Your task to perform on an android device: toggle wifi Image 0: 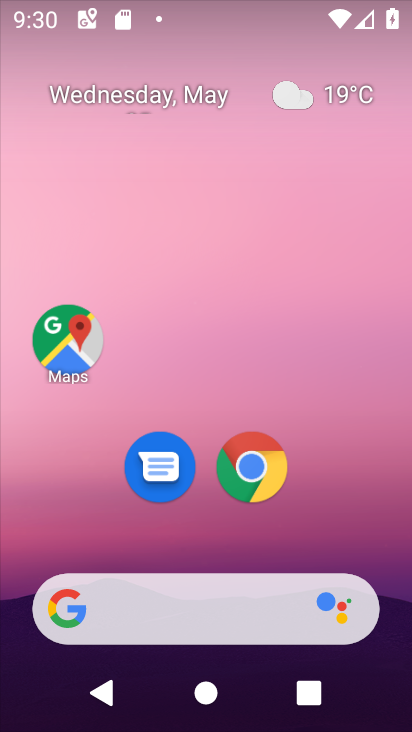
Step 0: drag from (320, 462) to (368, 101)
Your task to perform on an android device: toggle wifi Image 1: 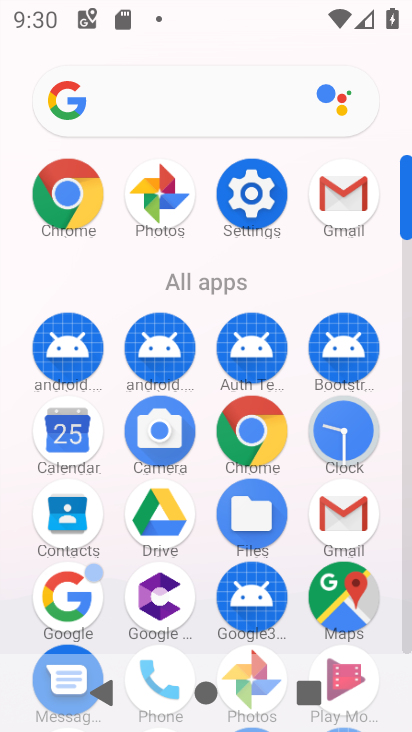
Step 1: click (275, 192)
Your task to perform on an android device: toggle wifi Image 2: 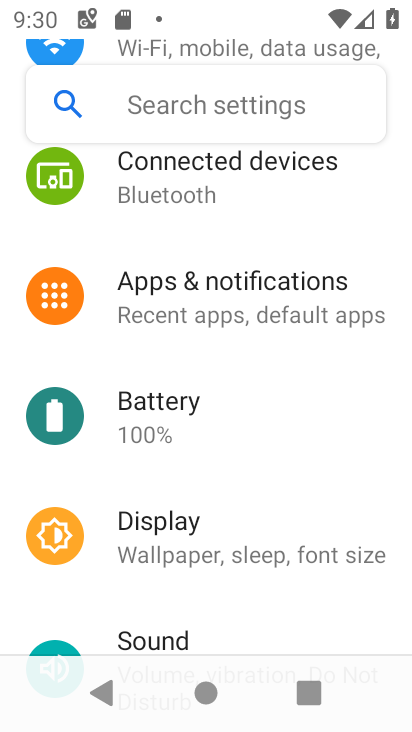
Step 2: drag from (232, 187) to (183, 572)
Your task to perform on an android device: toggle wifi Image 3: 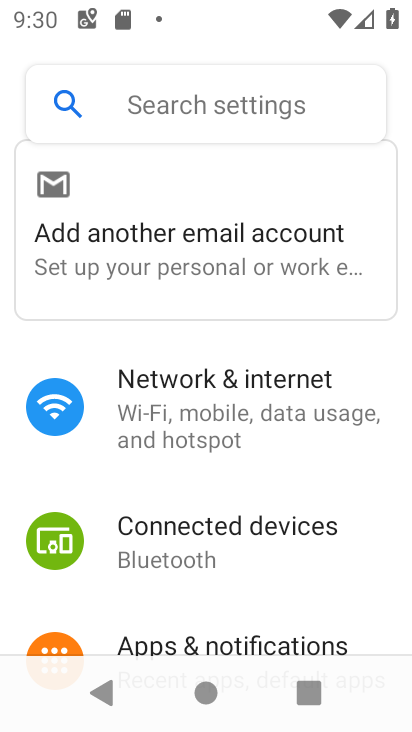
Step 3: click (180, 375)
Your task to perform on an android device: toggle wifi Image 4: 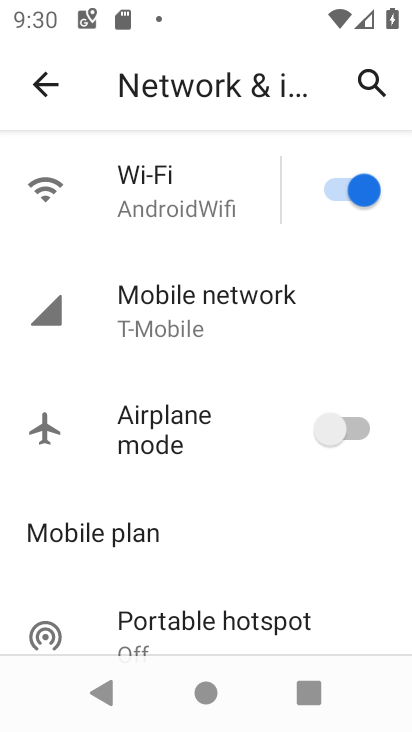
Step 4: click (369, 199)
Your task to perform on an android device: toggle wifi Image 5: 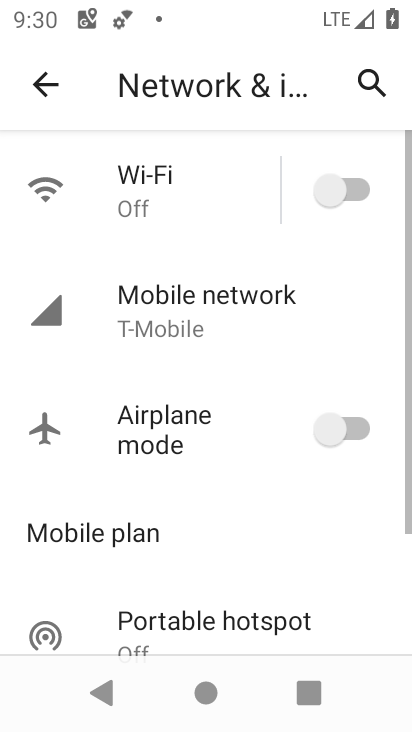
Step 5: task complete